Your task to perform on an android device: open app "WhatsApp Messenger" (install if not already installed), go to login, and select forgot password Image 0: 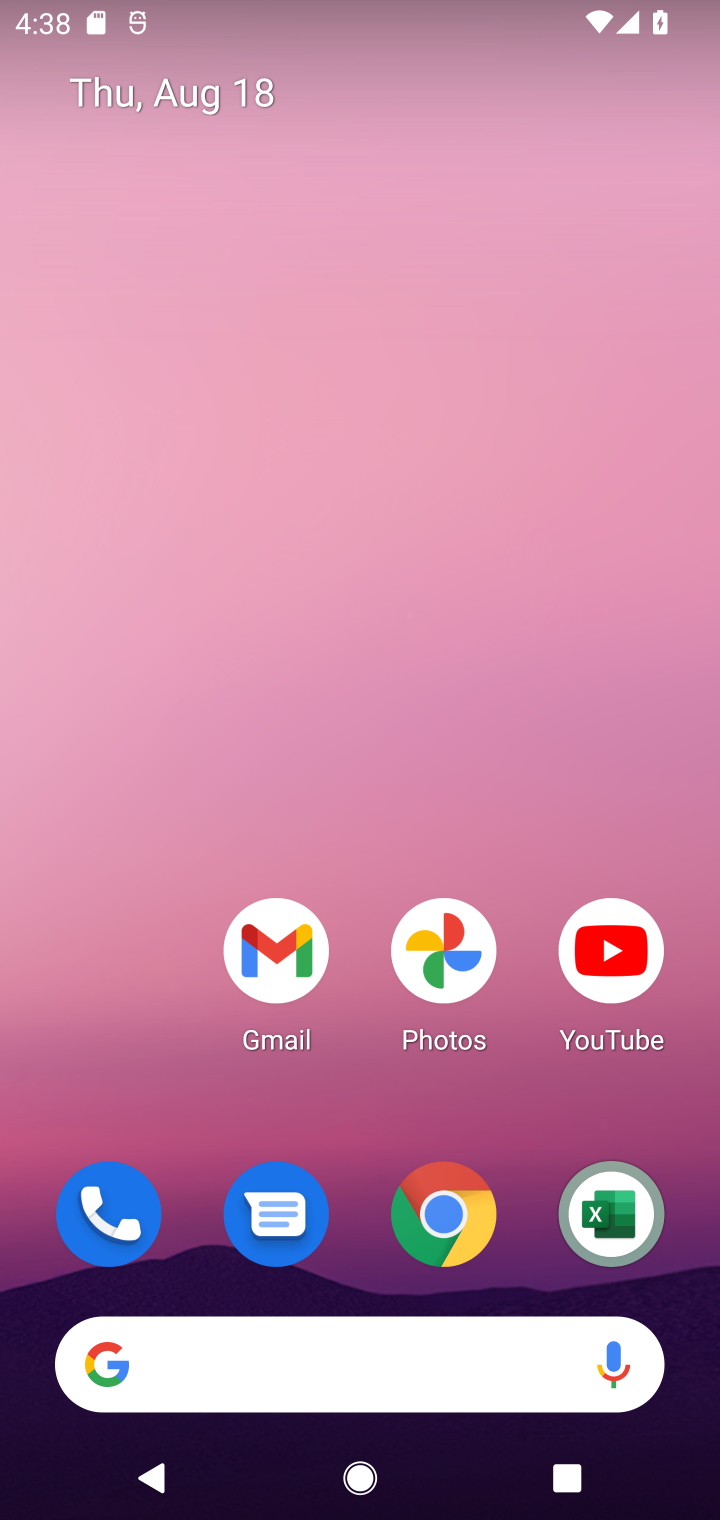
Step 0: drag from (294, 905) to (549, 118)
Your task to perform on an android device: open app "WhatsApp Messenger" (install if not already installed), go to login, and select forgot password Image 1: 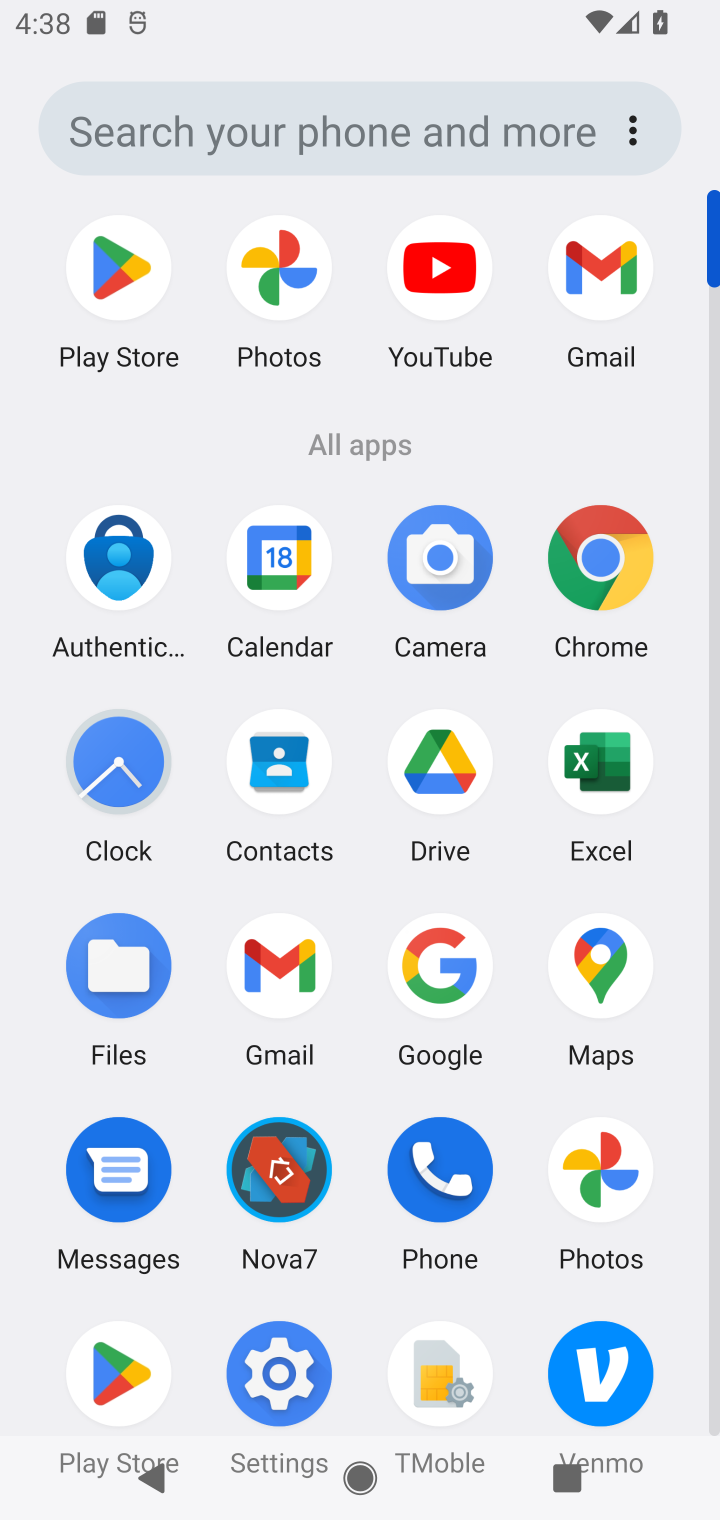
Step 1: drag from (416, 1219) to (439, 626)
Your task to perform on an android device: open app "WhatsApp Messenger" (install if not already installed), go to login, and select forgot password Image 2: 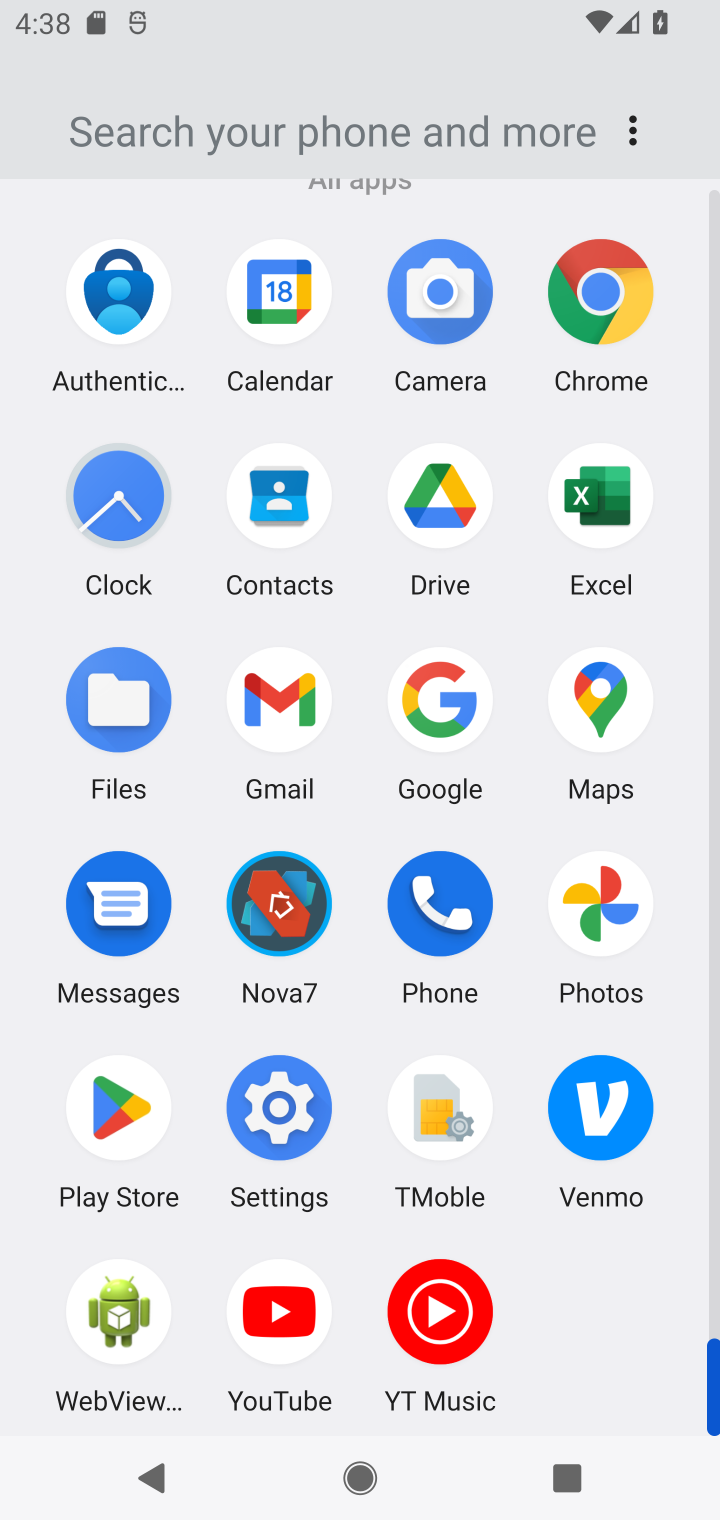
Step 2: click (140, 1133)
Your task to perform on an android device: open app "WhatsApp Messenger" (install if not already installed), go to login, and select forgot password Image 3: 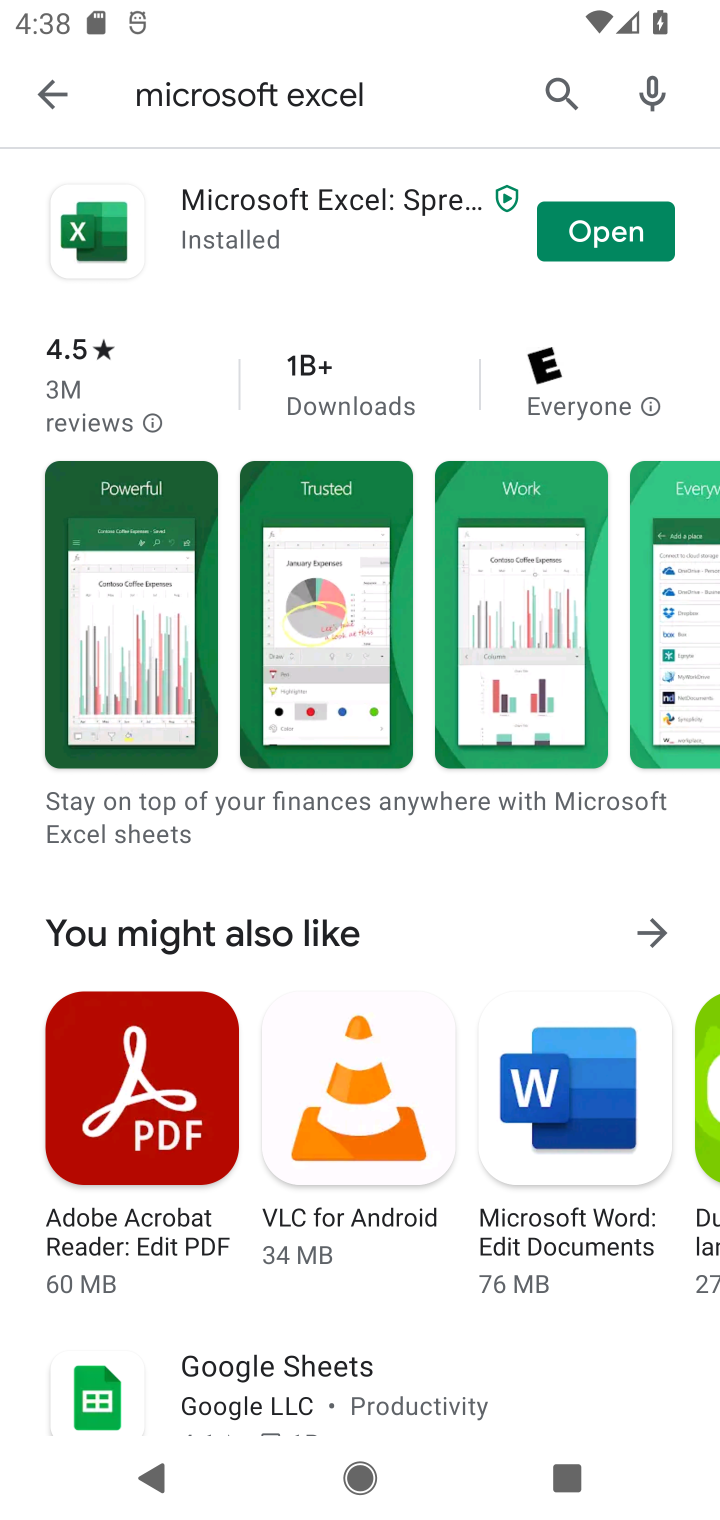
Step 3: click (247, 95)
Your task to perform on an android device: open app "WhatsApp Messenger" (install if not already installed), go to login, and select forgot password Image 4: 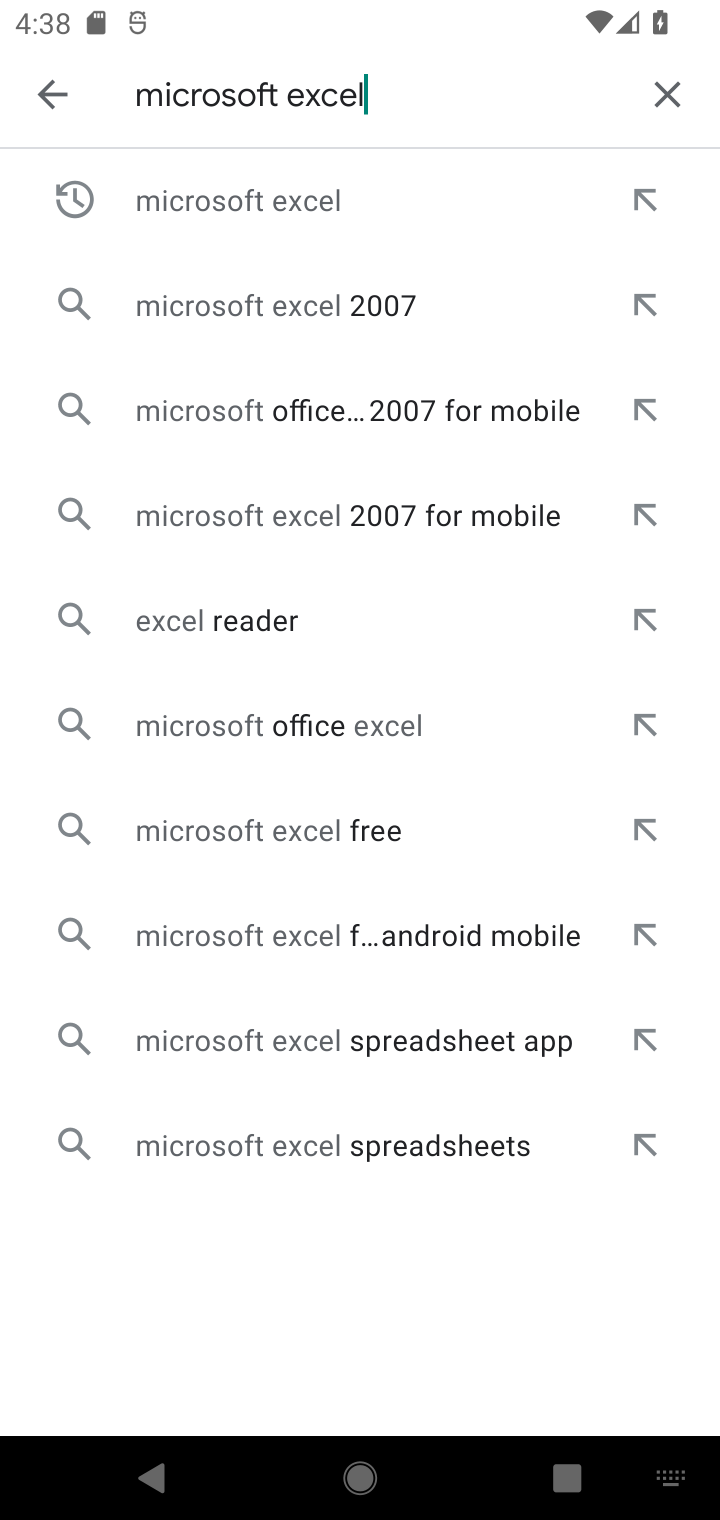
Step 4: click (649, 84)
Your task to perform on an android device: open app "WhatsApp Messenger" (install if not already installed), go to login, and select forgot password Image 5: 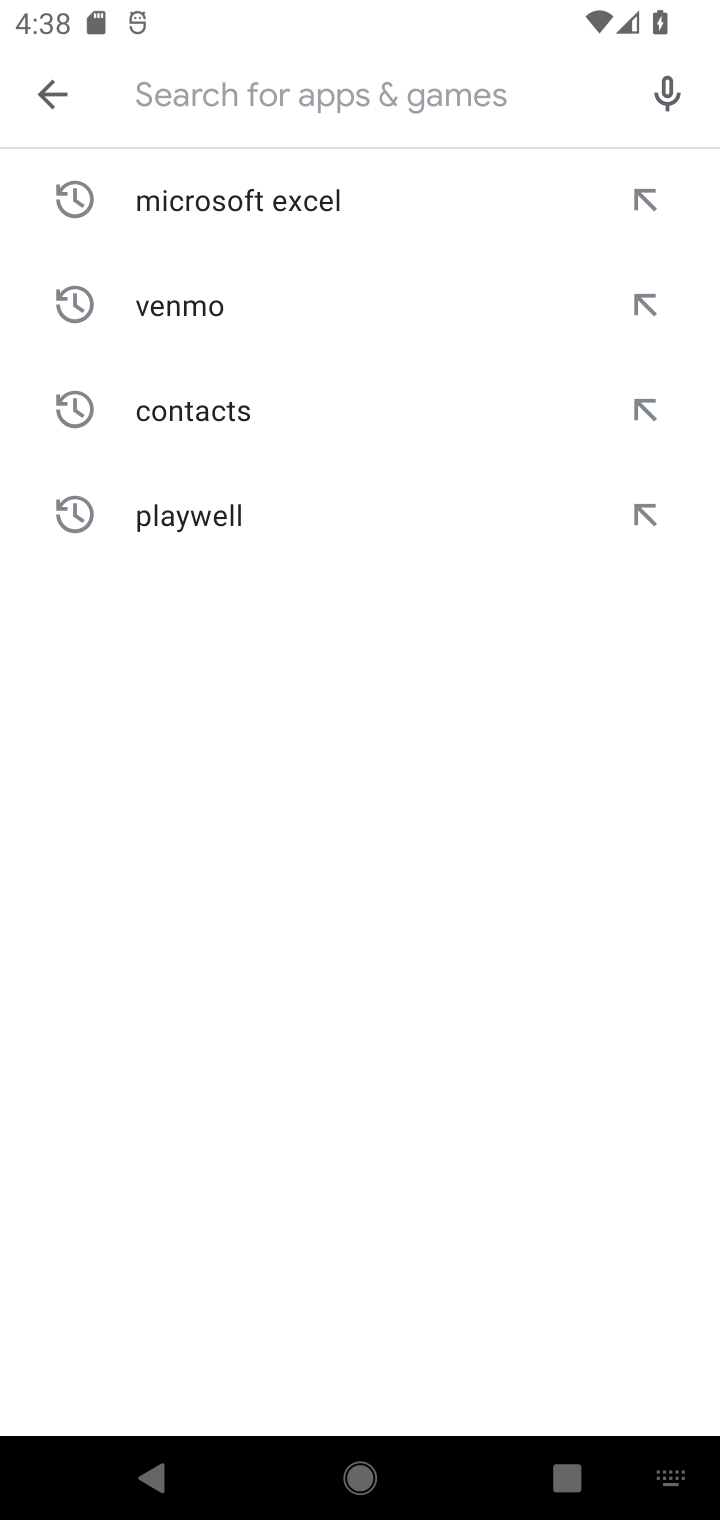
Step 5: type "whatsapp messenger"
Your task to perform on an android device: open app "WhatsApp Messenger" (install if not already installed), go to login, and select forgot password Image 6: 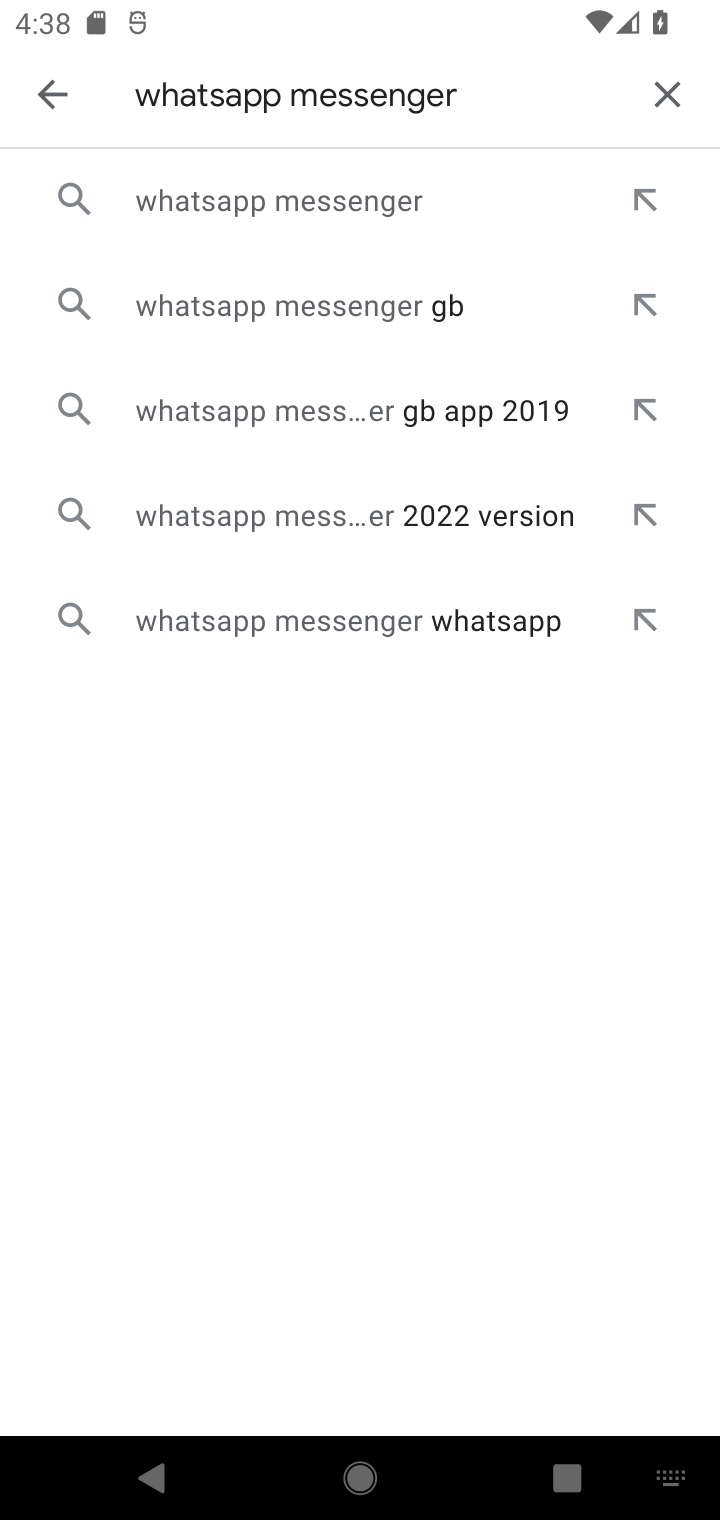
Step 6: click (325, 184)
Your task to perform on an android device: open app "WhatsApp Messenger" (install if not already installed), go to login, and select forgot password Image 7: 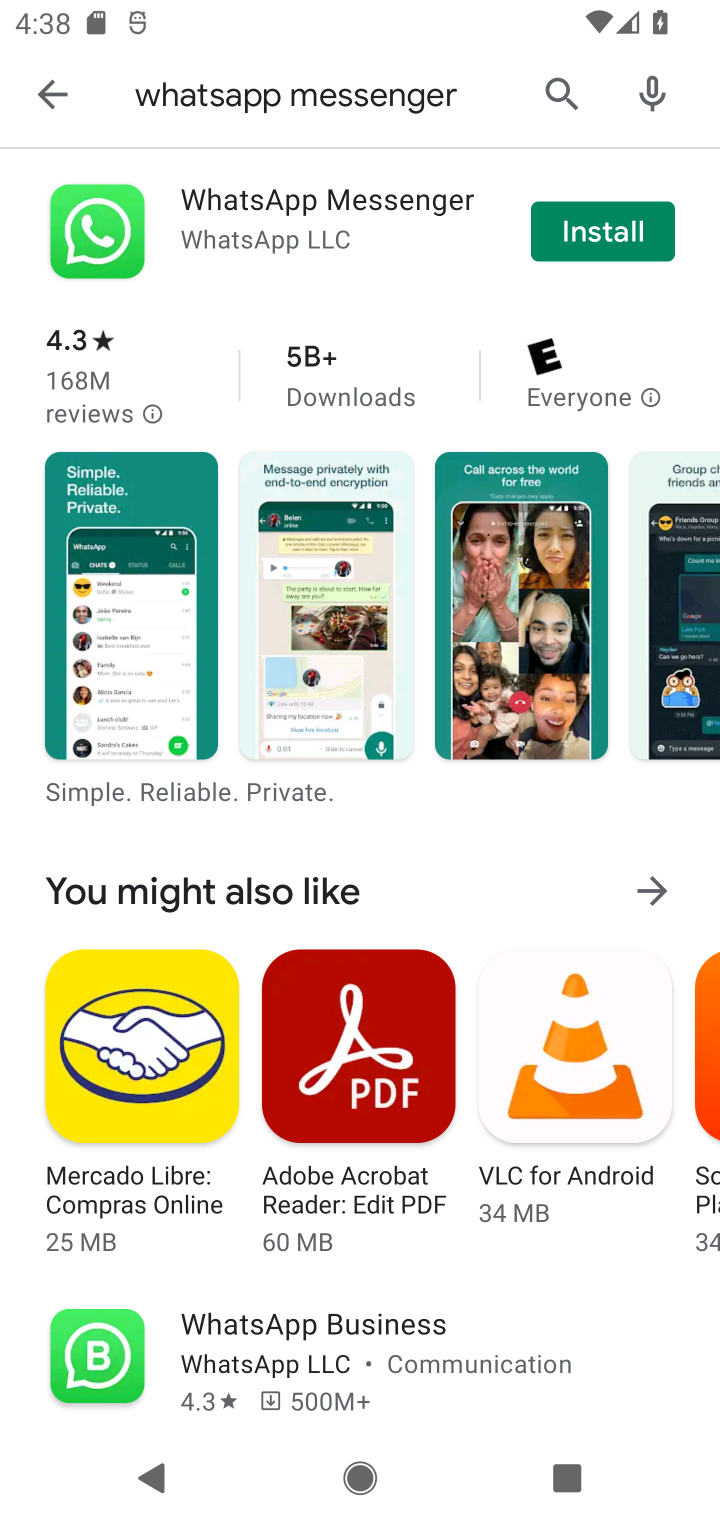
Step 7: click (609, 251)
Your task to perform on an android device: open app "WhatsApp Messenger" (install if not already installed), go to login, and select forgot password Image 8: 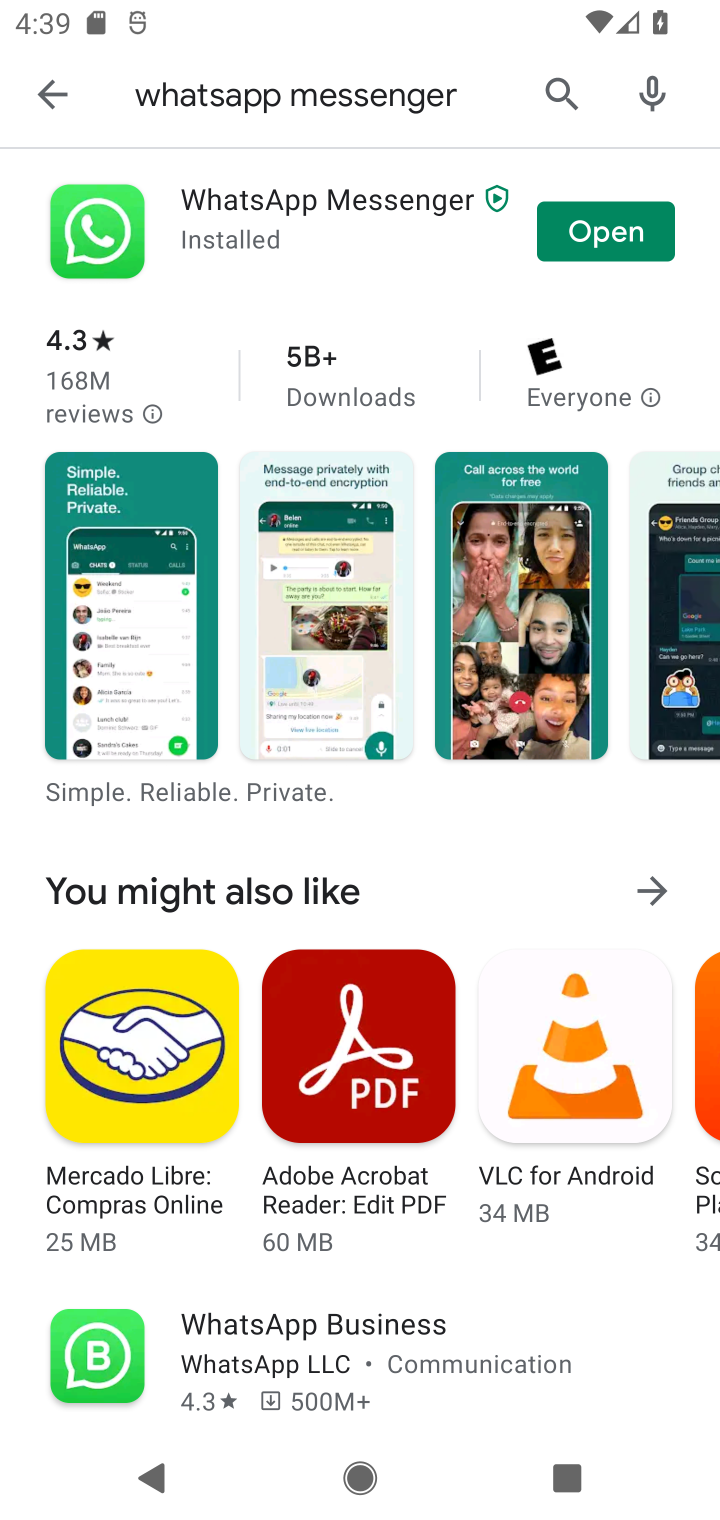
Step 8: click (593, 231)
Your task to perform on an android device: open app "WhatsApp Messenger" (install if not already installed), go to login, and select forgot password Image 9: 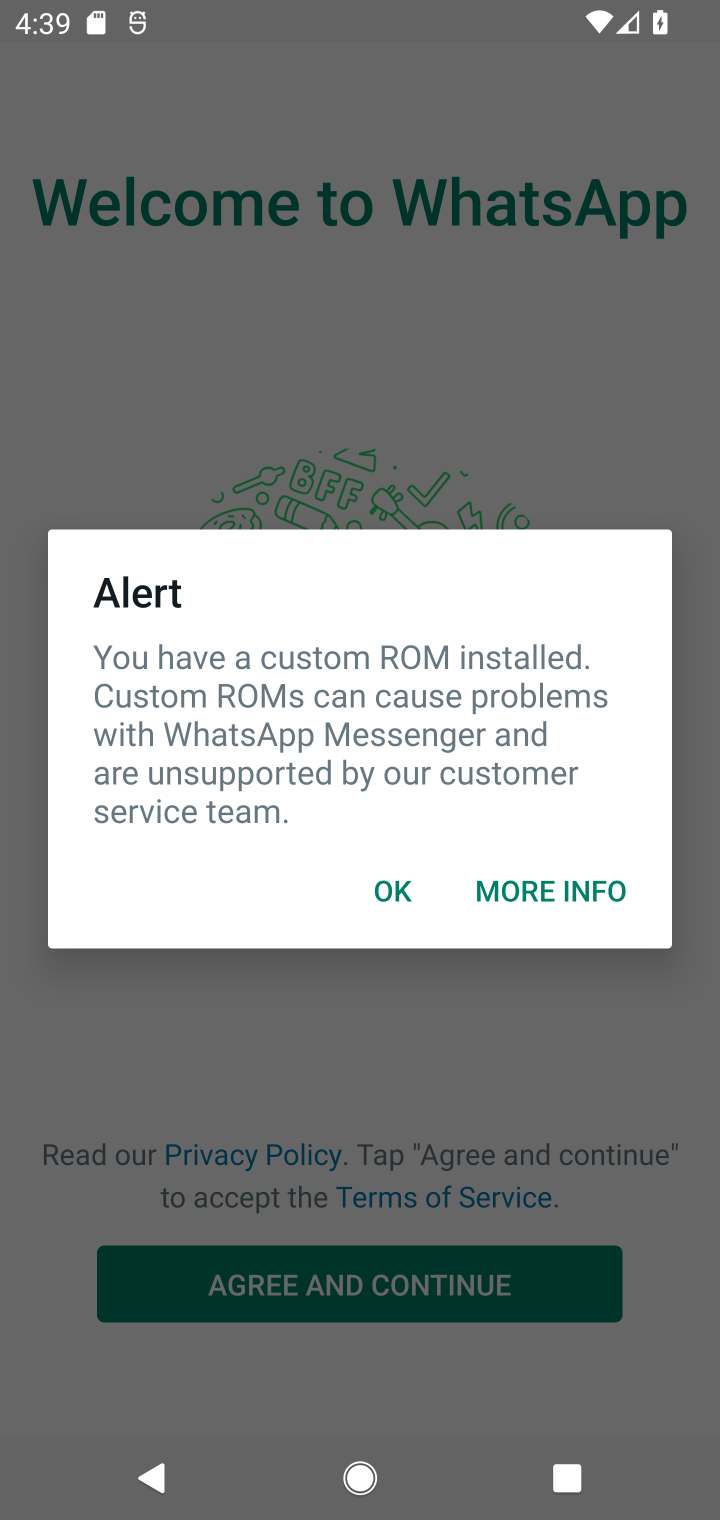
Step 9: click (389, 885)
Your task to perform on an android device: open app "WhatsApp Messenger" (install if not already installed), go to login, and select forgot password Image 10: 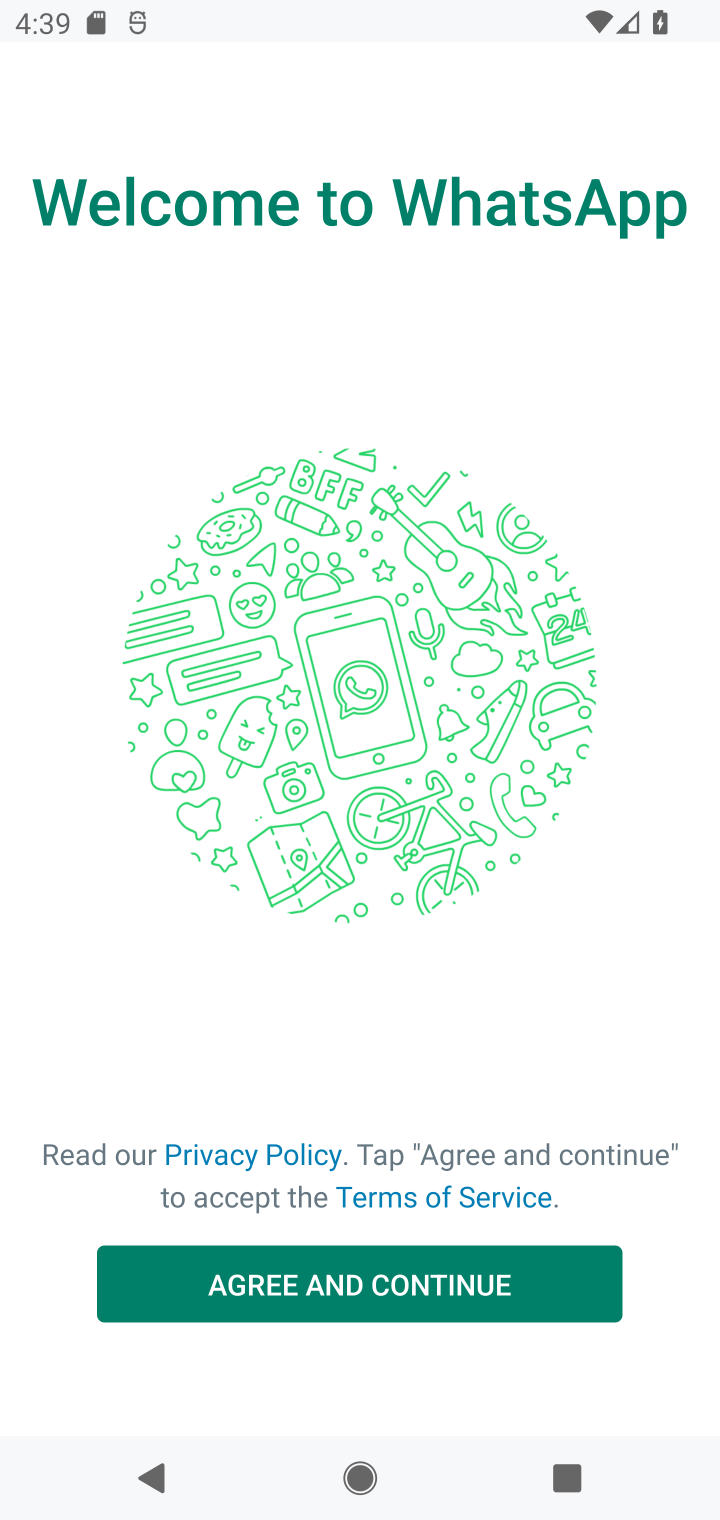
Step 10: click (353, 1296)
Your task to perform on an android device: open app "WhatsApp Messenger" (install if not already installed), go to login, and select forgot password Image 11: 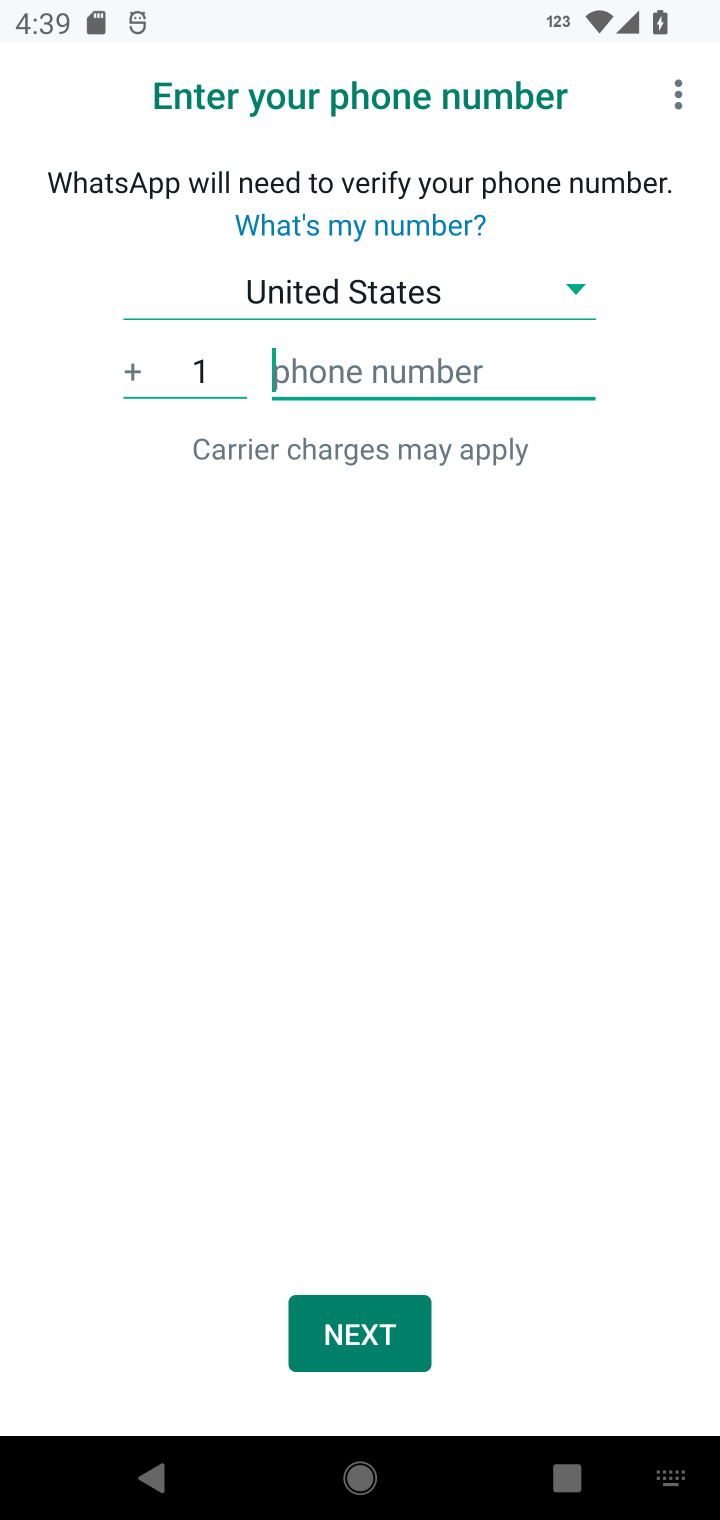
Step 11: task complete